Your task to perform on an android device: Open location settings Image 0: 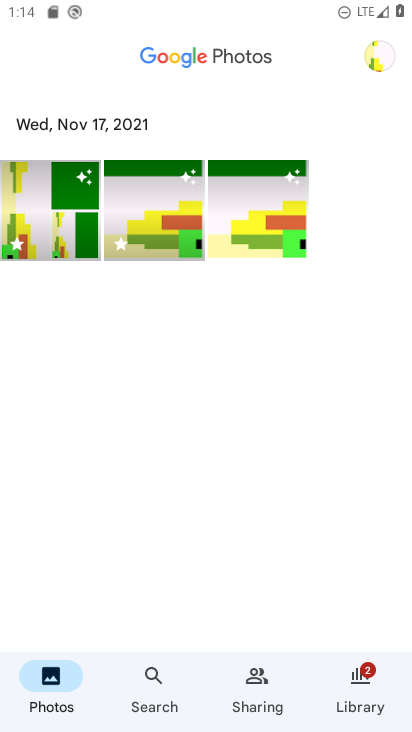
Step 0: press home button
Your task to perform on an android device: Open location settings Image 1: 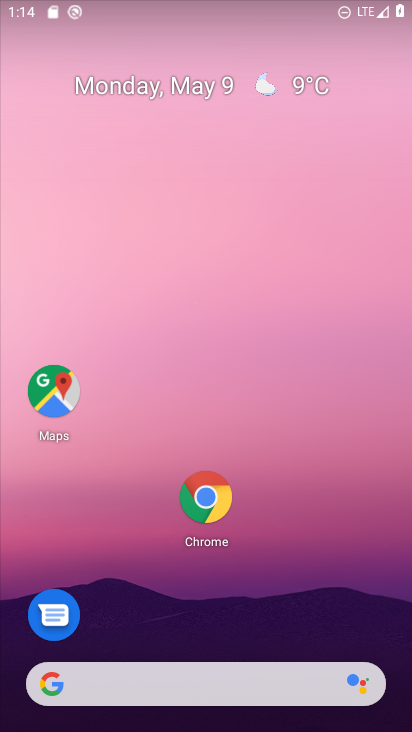
Step 1: drag from (349, 598) to (274, 159)
Your task to perform on an android device: Open location settings Image 2: 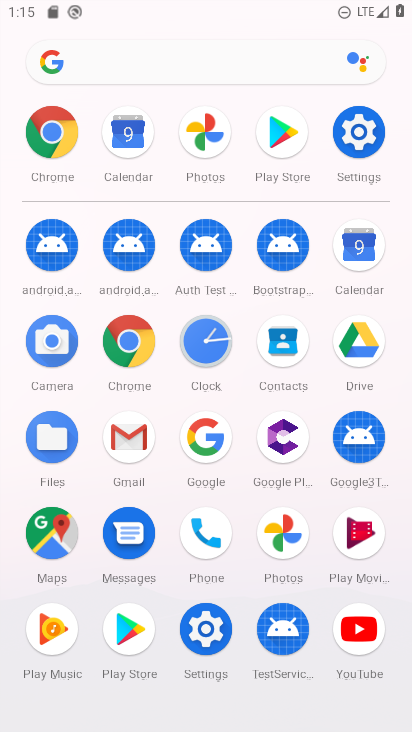
Step 2: click (352, 142)
Your task to perform on an android device: Open location settings Image 3: 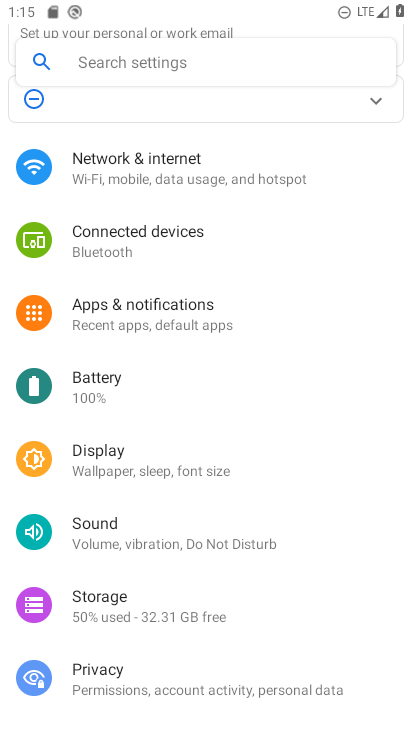
Step 3: drag from (126, 659) to (177, 285)
Your task to perform on an android device: Open location settings Image 4: 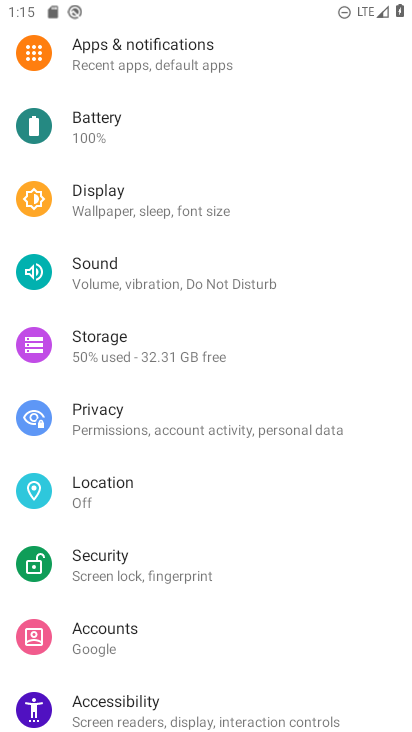
Step 4: click (116, 494)
Your task to perform on an android device: Open location settings Image 5: 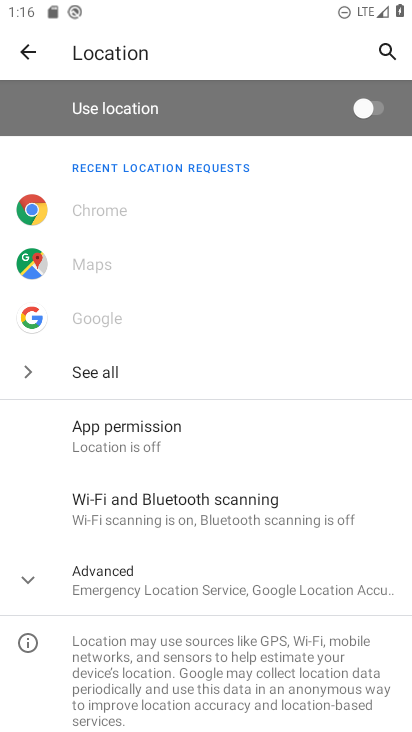
Step 5: click (147, 571)
Your task to perform on an android device: Open location settings Image 6: 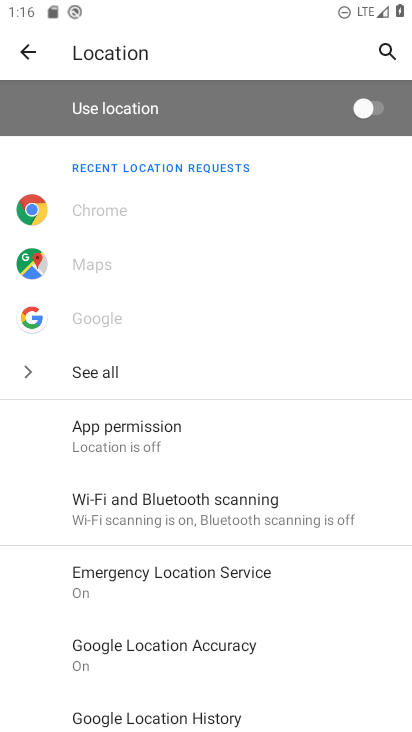
Step 6: task complete